Your task to perform on an android device: turn pop-ups off in chrome Image 0: 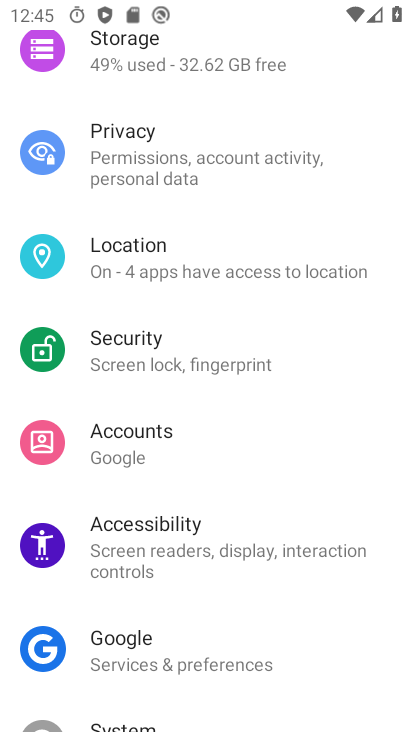
Step 0: press home button
Your task to perform on an android device: turn pop-ups off in chrome Image 1: 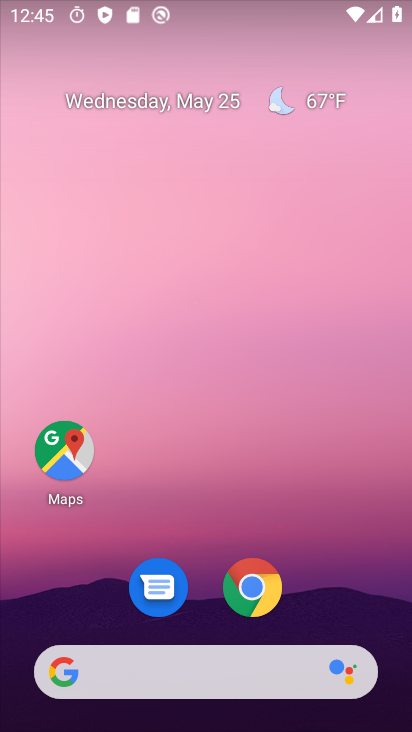
Step 1: click (250, 612)
Your task to perform on an android device: turn pop-ups off in chrome Image 2: 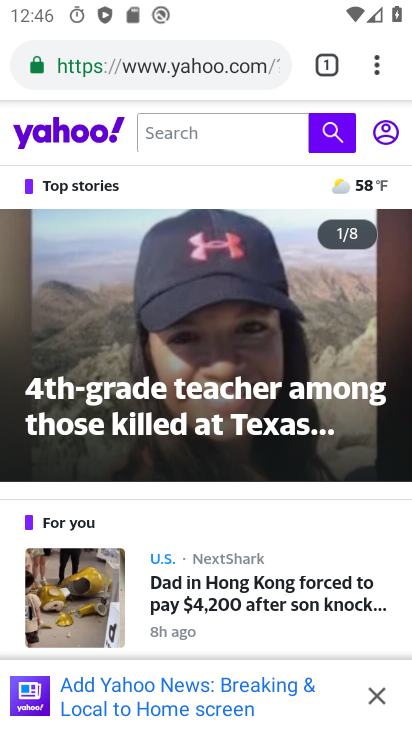
Step 2: click (377, 71)
Your task to perform on an android device: turn pop-ups off in chrome Image 3: 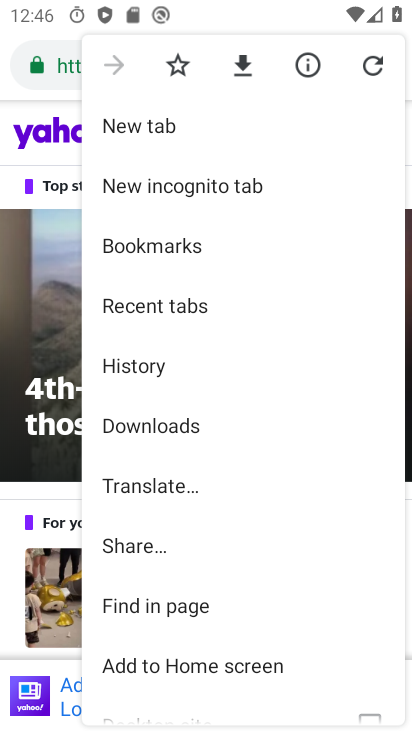
Step 3: drag from (163, 685) to (165, 107)
Your task to perform on an android device: turn pop-ups off in chrome Image 4: 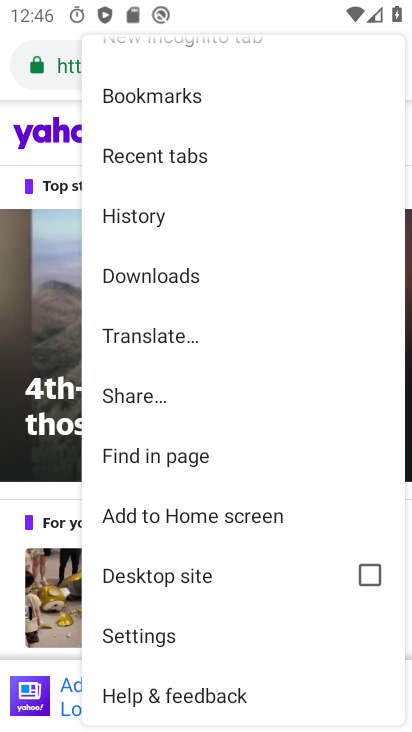
Step 4: click (144, 637)
Your task to perform on an android device: turn pop-ups off in chrome Image 5: 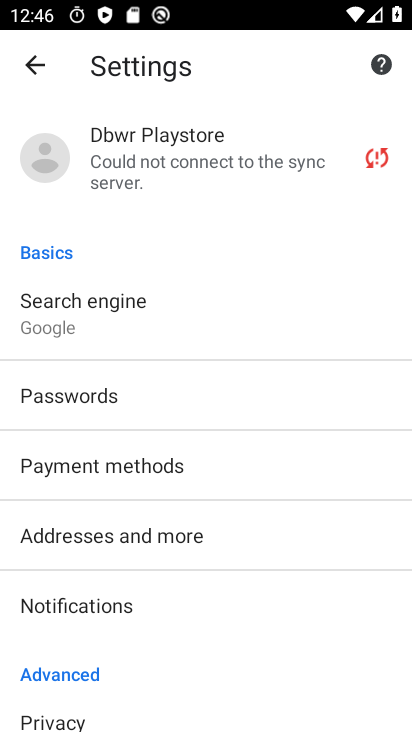
Step 5: drag from (139, 653) to (169, 268)
Your task to perform on an android device: turn pop-ups off in chrome Image 6: 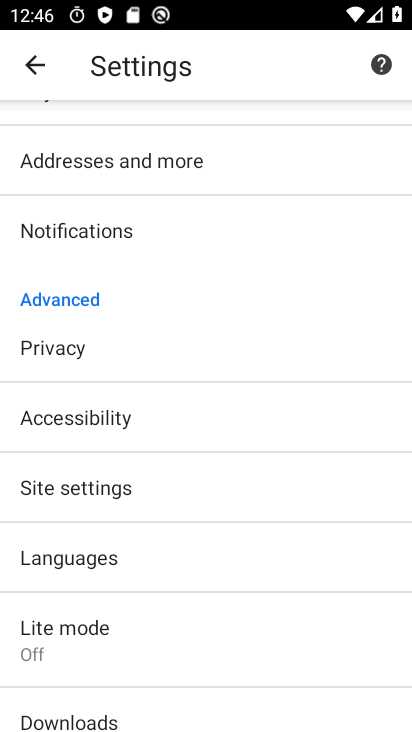
Step 6: drag from (82, 665) to (91, 304)
Your task to perform on an android device: turn pop-ups off in chrome Image 7: 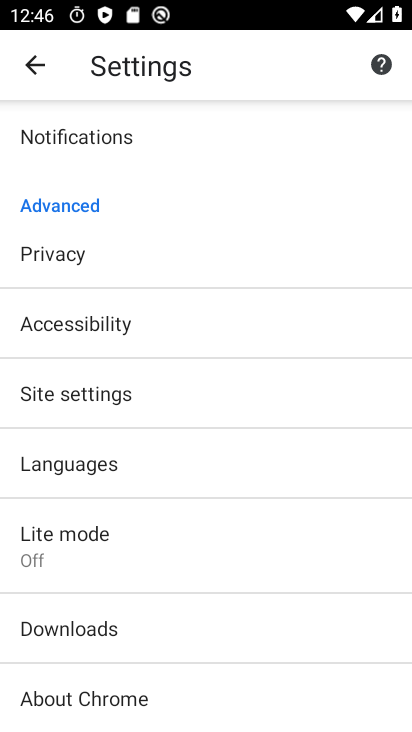
Step 7: click (108, 395)
Your task to perform on an android device: turn pop-ups off in chrome Image 8: 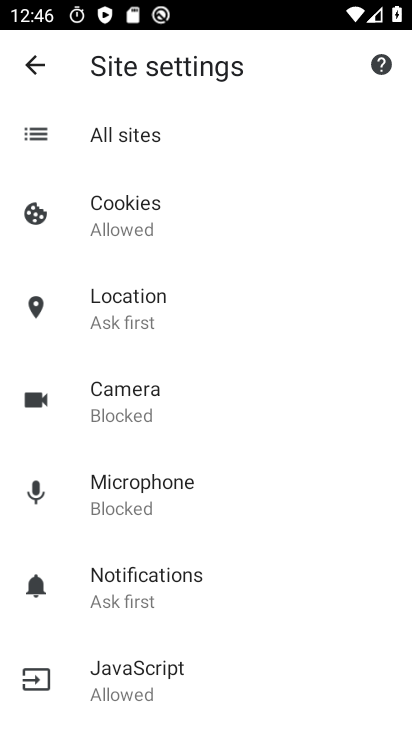
Step 8: drag from (113, 657) to (117, 265)
Your task to perform on an android device: turn pop-ups off in chrome Image 9: 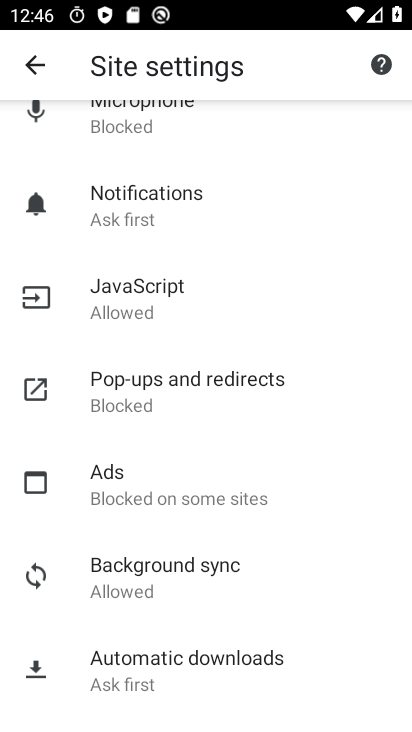
Step 9: click (142, 387)
Your task to perform on an android device: turn pop-ups off in chrome Image 10: 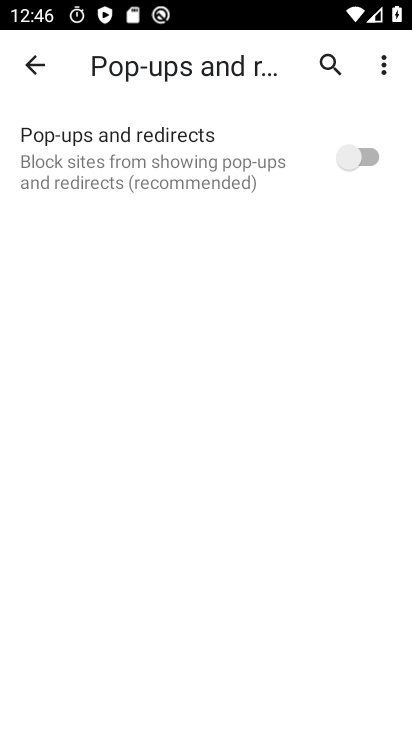
Step 10: task complete